Your task to perform on an android device: Find coffee shops on Maps Image 0: 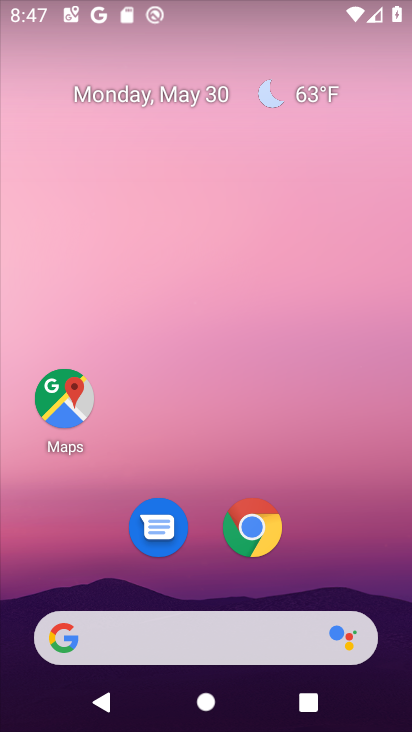
Step 0: click (63, 395)
Your task to perform on an android device: Find coffee shops on Maps Image 1: 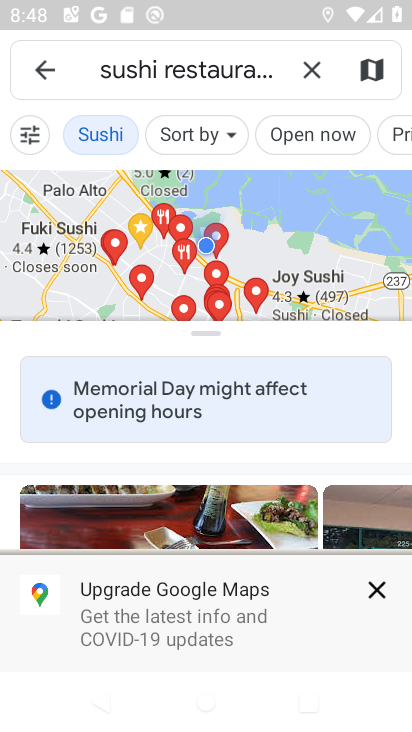
Step 1: click (304, 70)
Your task to perform on an android device: Find coffee shops on Maps Image 2: 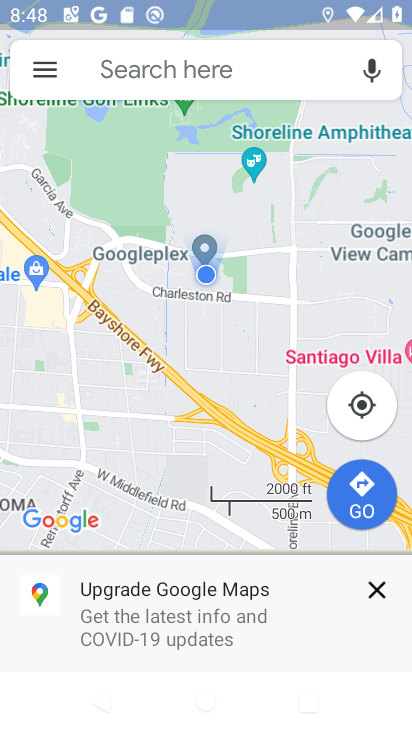
Step 2: click (217, 70)
Your task to perform on an android device: Find coffee shops on Maps Image 3: 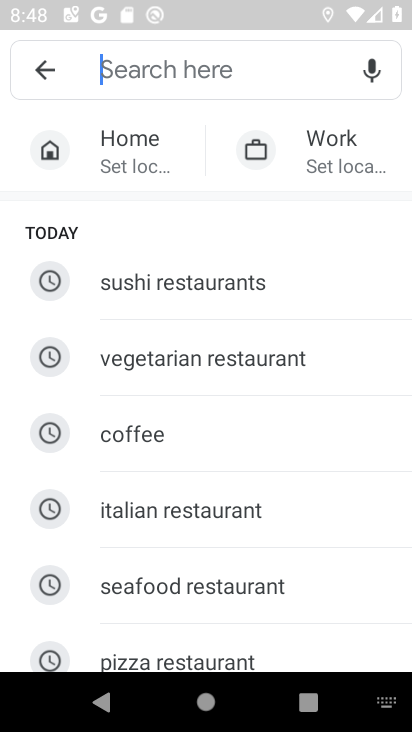
Step 3: click (211, 436)
Your task to perform on an android device: Find coffee shops on Maps Image 4: 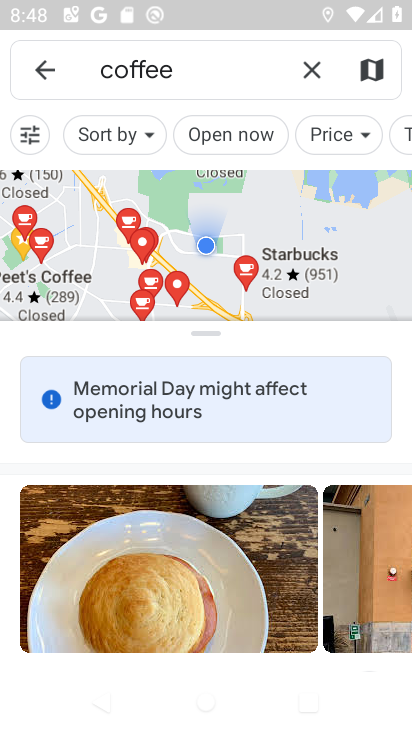
Step 4: task complete